Your task to perform on an android device: Open accessibility settings Image 0: 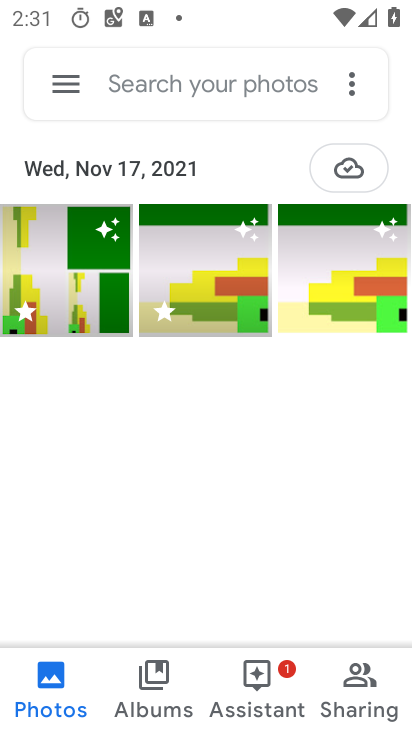
Step 0: press home button
Your task to perform on an android device: Open accessibility settings Image 1: 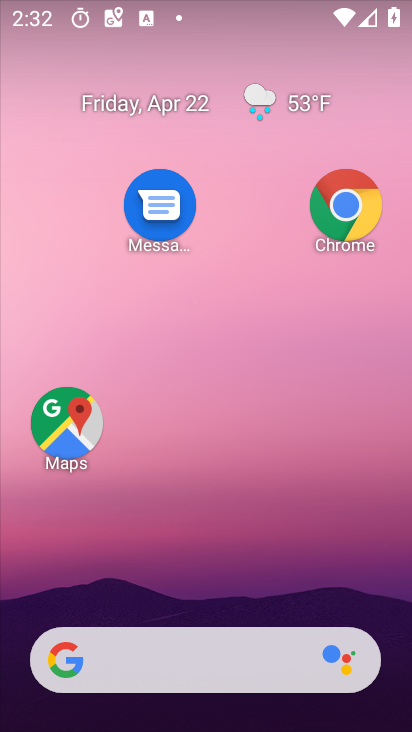
Step 1: drag from (197, 621) to (238, 242)
Your task to perform on an android device: Open accessibility settings Image 2: 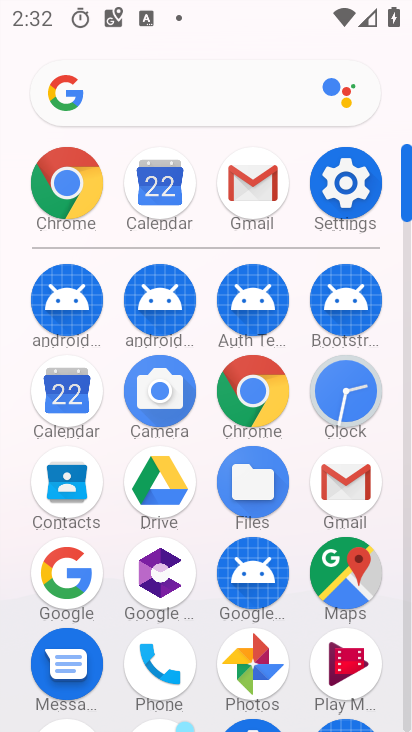
Step 2: click (341, 186)
Your task to perform on an android device: Open accessibility settings Image 3: 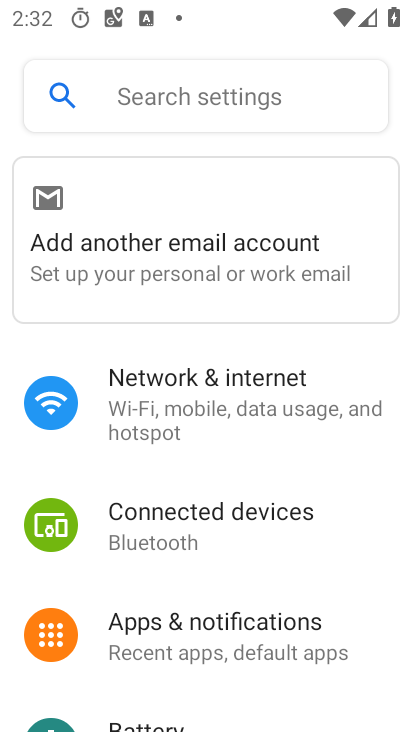
Step 3: drag from (218, 597) to (216, 163)
Your task to perform on an android device: Open accessibility settings Image 4: 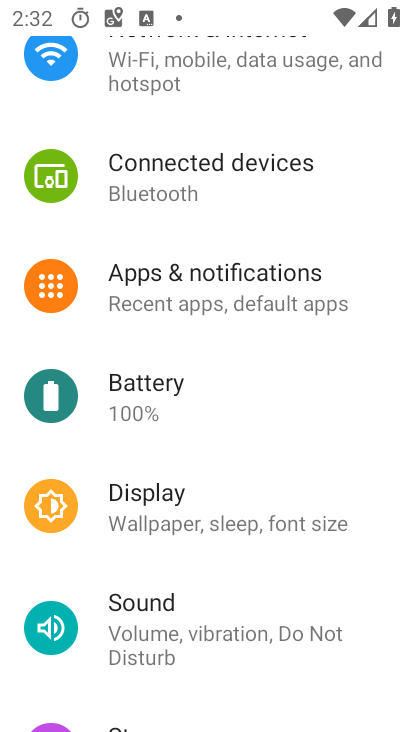
Step 4: drag from (164, 608) to (159, 276)
Your task to perform on an android device: Open accessibility settings Image 5: 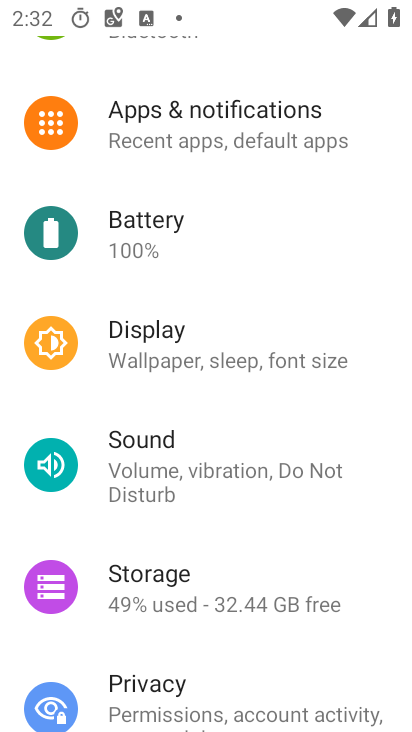
Step 5: drag from (182, 691) to (178, 368)
Your task to perform on an android device: Open accessibility settings Image 6: 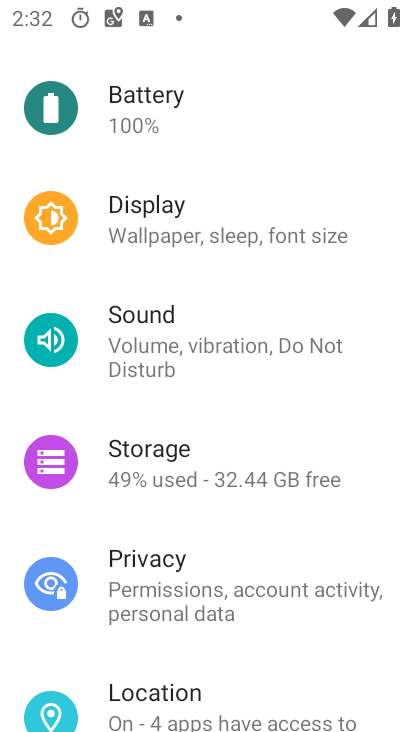
Step 6: drag from (160, 669) to (140, 378)
Your task to perform on an android device: Open accessibility settings Image 7: 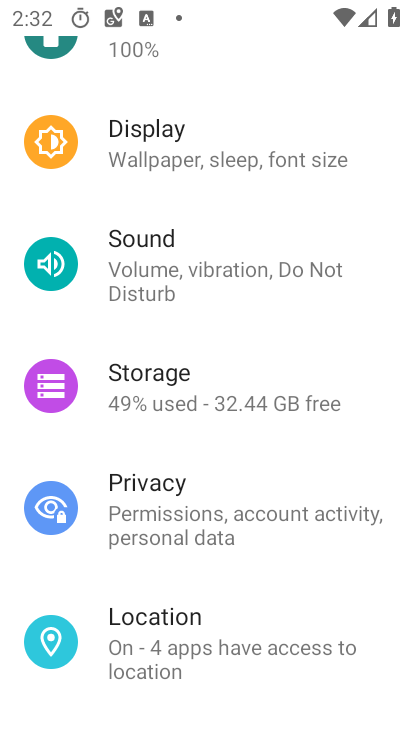
Step 7: drag from (144, 649) to (125, 387)
Your task to perform on an android device: Open accessibility settings Image 8: 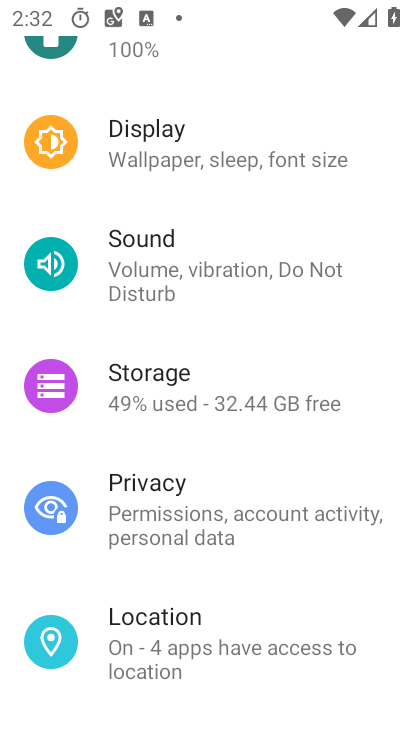
Step 8: drag from (282, 625) to (282, 383)
Your task to perform on an android device: Open accessibility settings Image 9: 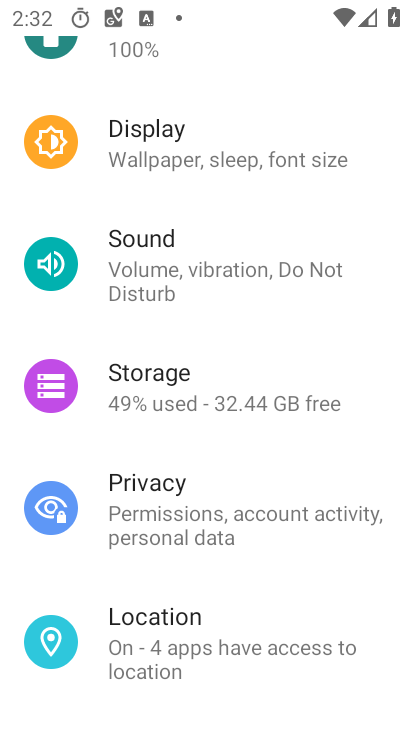
Step 9: drag from (250, 614) to (236, 325)
Your task to perform on an android device: Open accessibility settings Image 10: 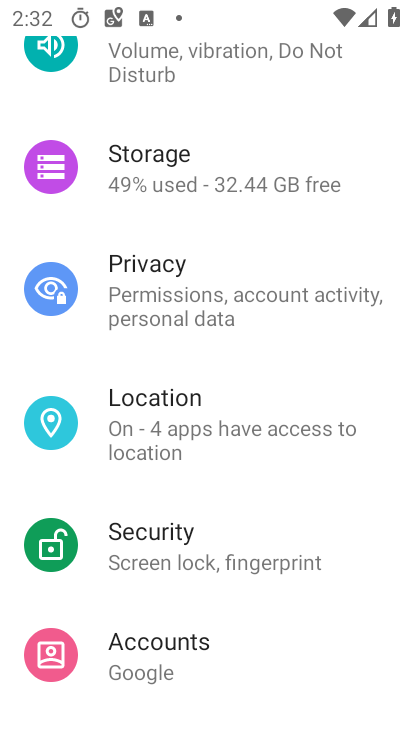
Step 10: click (203, 330)
Your task to perform on an android device: Open accessibility settings Image 11: 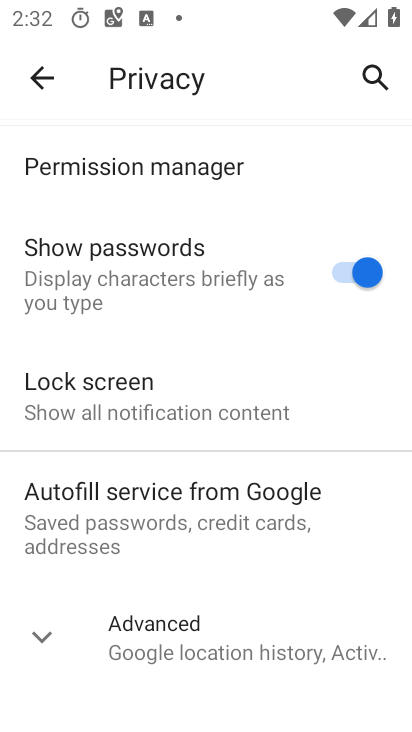
Step 11: drag from (198, 690) to (194, 410)
Your task to perform on an android device: Open accessibility settings Image 12: 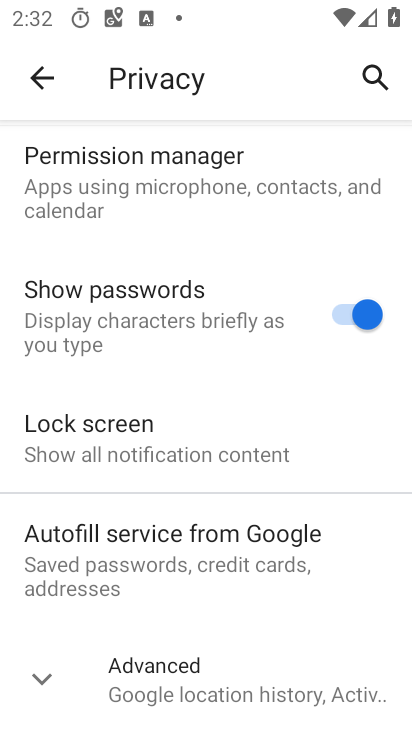
Step 12: click (37, 83)
Your task to perform on an android device: Open accessibility settings Image 13: 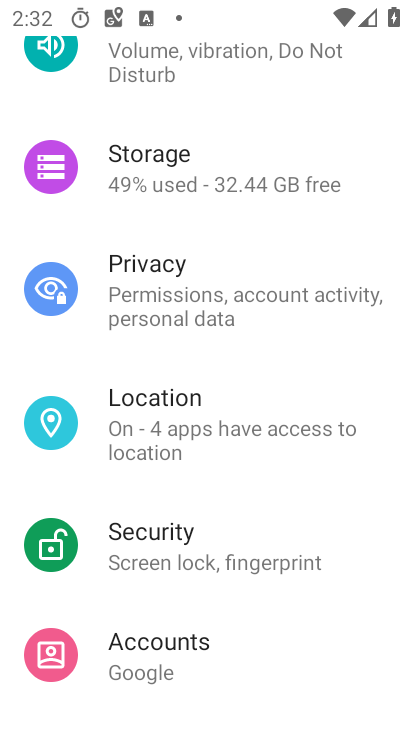
Step 13: drag from (196, 689) to (182, 302)
Your task to perform on an android device: Open accessibility settings Image 14: 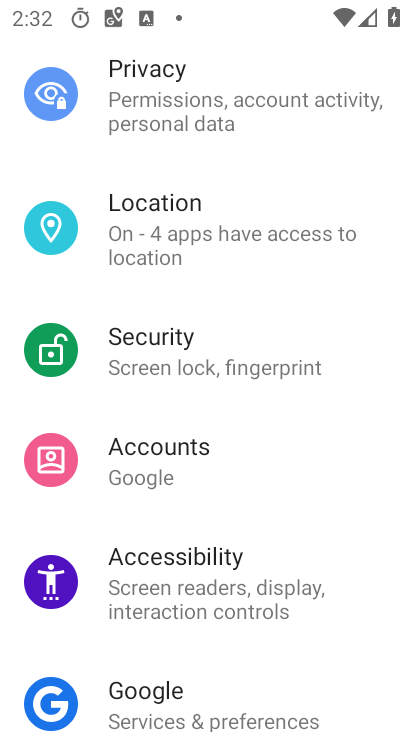
Step 14: click (184, 593)
Your task to perform on an android device: Open accessibility settings Image 15: 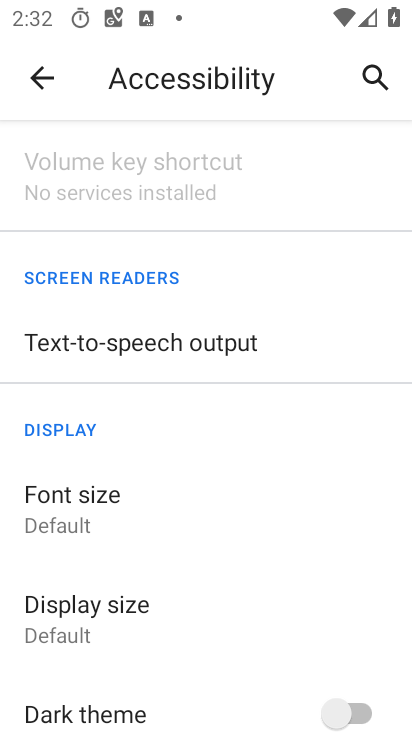
Step 15: task complete